Your task to perform on an android device: Open Chrome and go to the settings page Image 0: 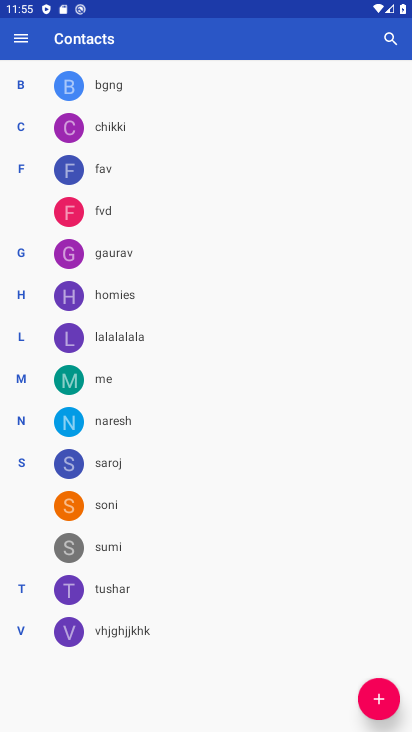
Step 0: press home button
Your task to perform on an android device: Open Chrome and go to the settings page Image 1: 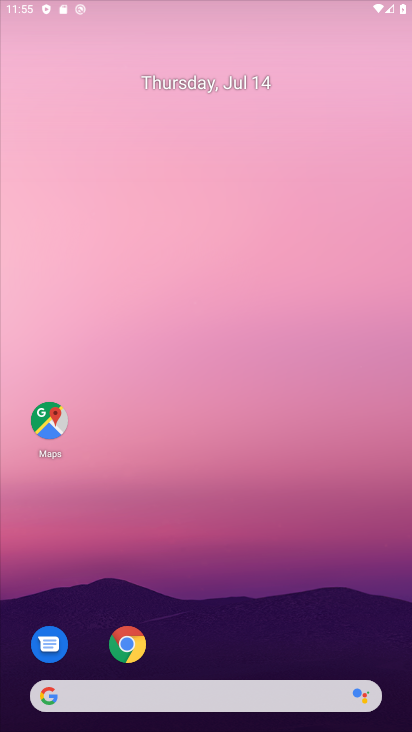
Step 1: drag from (357, 640) to (230, 98)
Your task to perform on an android device: Open Chrome and go to the settings page Image 2: 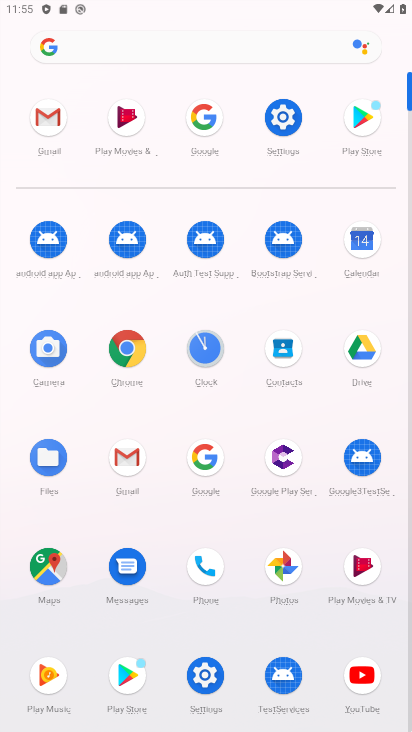
Step 2: click (122, 359)
Your task to perform on an android device: Open Chrome and go to the settings page Image 3: 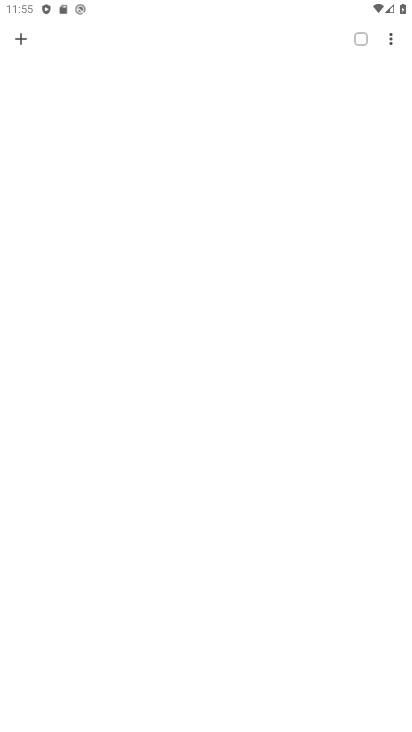
Step 3: click (388, 33)
Your task to perform on an android device: Open Chrome and go to the settings page Image 4: 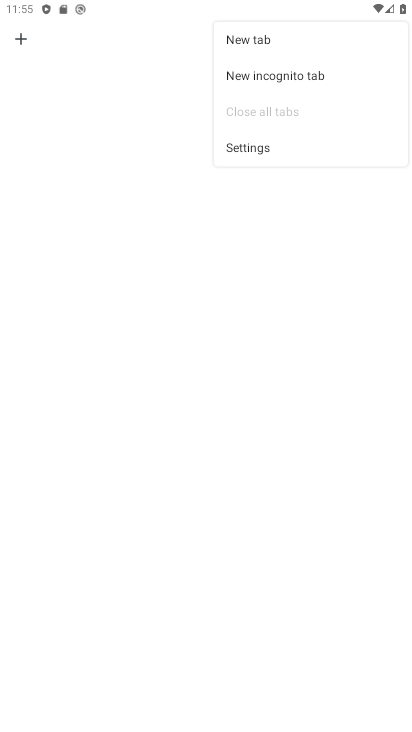
Step 4: click (242, 152)
Your task to perform on an android device: Open Chrome and go to the settings page Image 5: 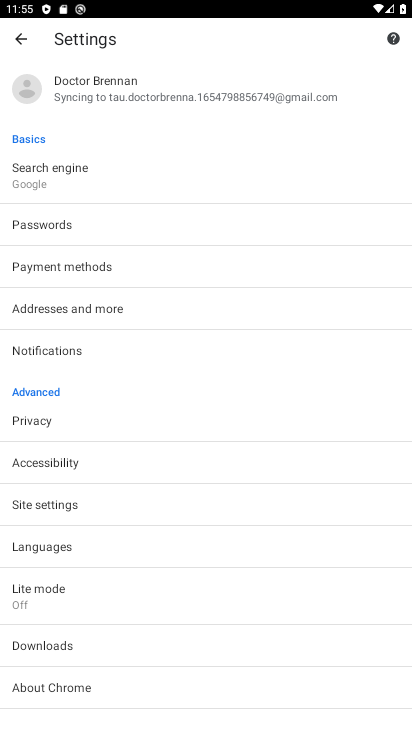
Step 5: task complete